Your task to perform on an android device: snooze an email in the gmail app Image 0: 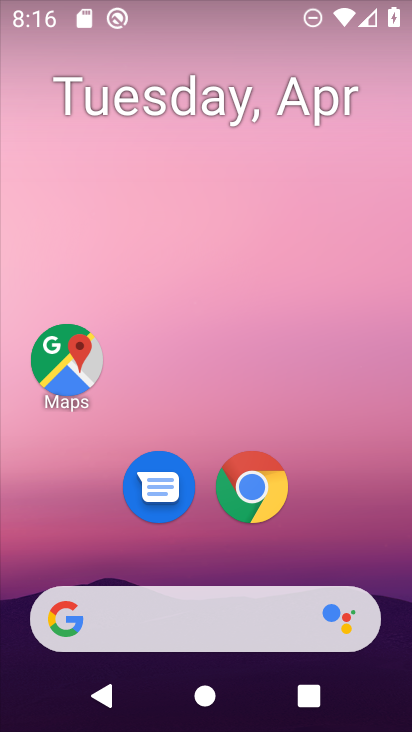
Step 0: drag from (203, 583) to (209, 251)
Your task to perform on an android device: snooze an email in the gmail app Image 1: 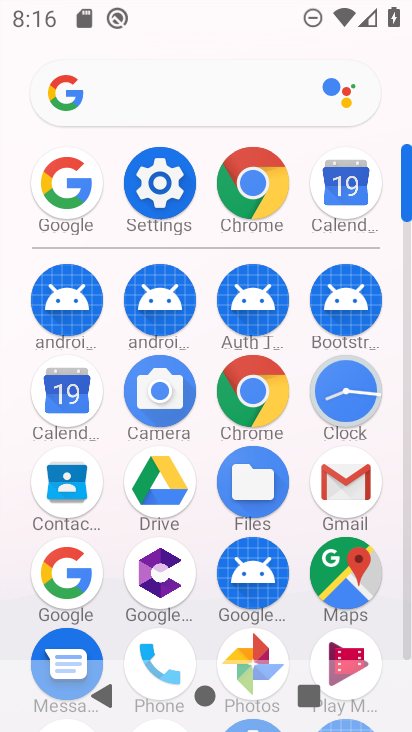
Step 1: click (329, 485)
Your task to perform on an android device: snooze an email in the gmail app Image 2: 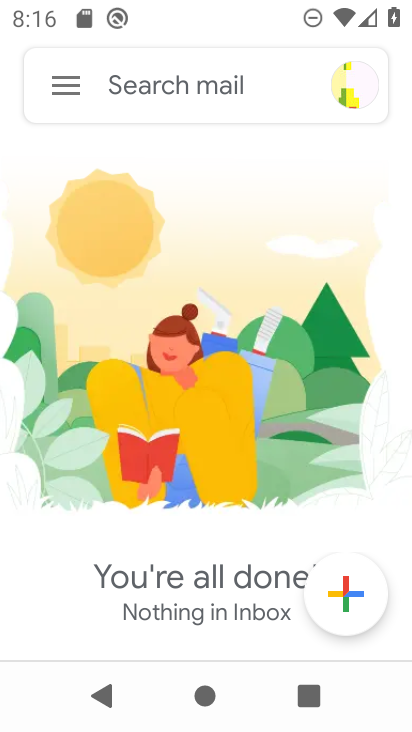
Step 2: click (70, 94)
Your task to perform on an android device: snooze an email in the gmail app Image 3: 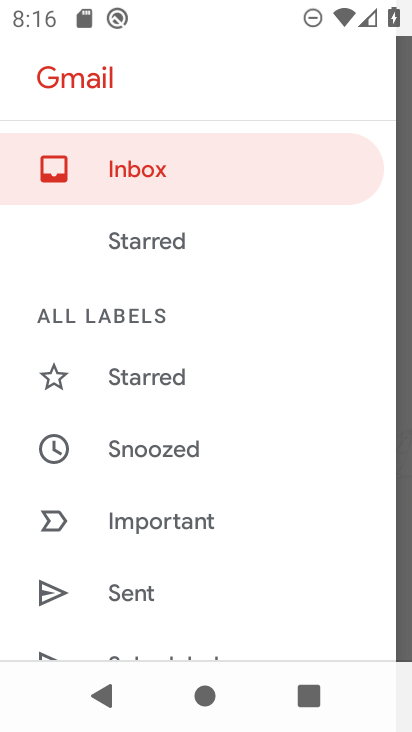
Step 3: click (172, 455)
Your task to perform on an android device: snooze an email in the gmail app Image 4: 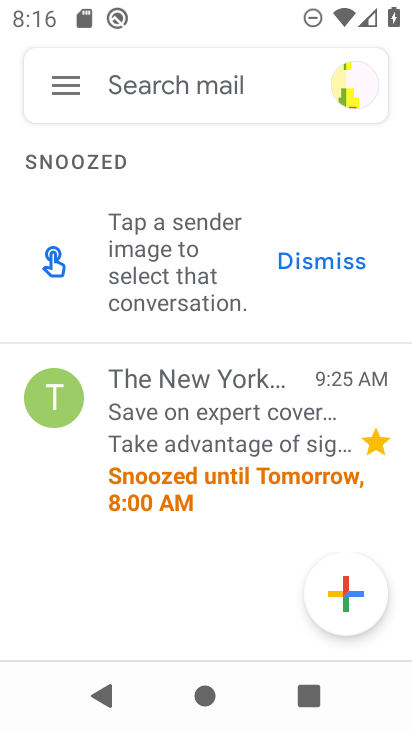
Step 4: click (67, 76)
Your task to perform on an android device: snooze an email in the gmail app Image 5: 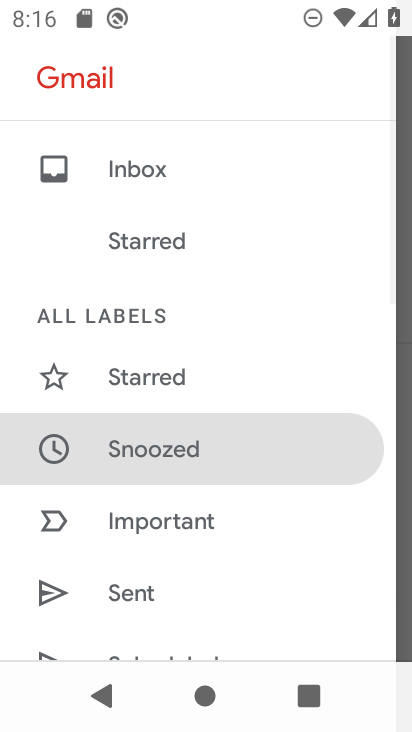
Step 5: drag from (153, 580) to (155, 253)
Your task to perform on an android device: snooze an email in the gmail app Image 6: 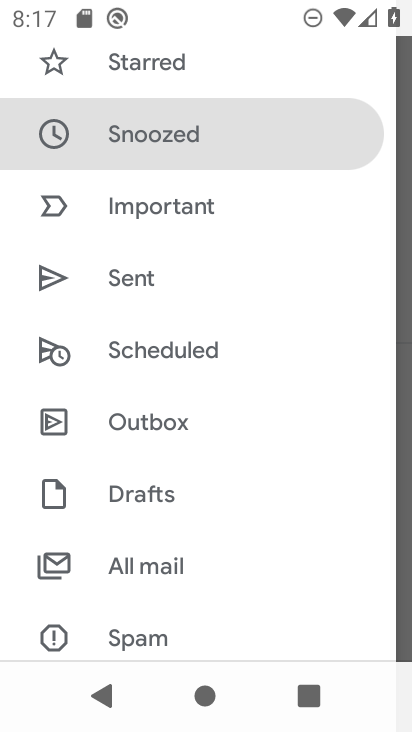
Step 6: drag from (205, 199) to (203, 504)
Your task to perform on an android device: snooze an email in the gmail app Image 7: 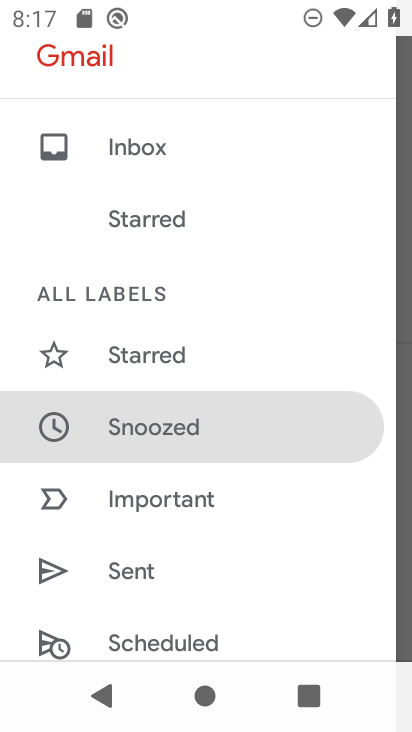
Step 7: click (127, 155)
Your task to perform on an android device: snooze an email in the gmail app Image 8: 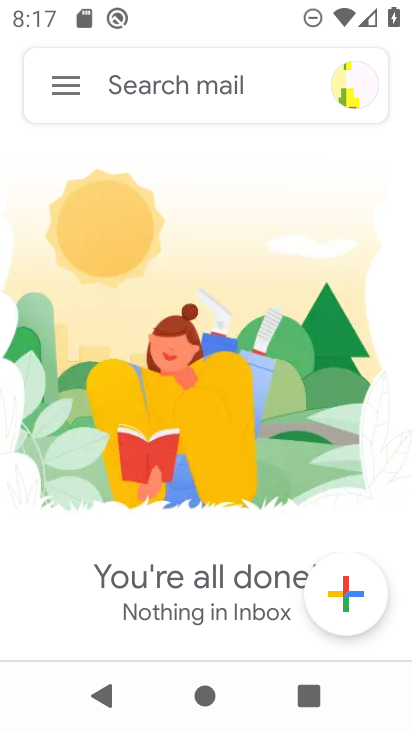
Step 8: task complete